Your task to perform on an android device: Open Reddit.com Image 0: 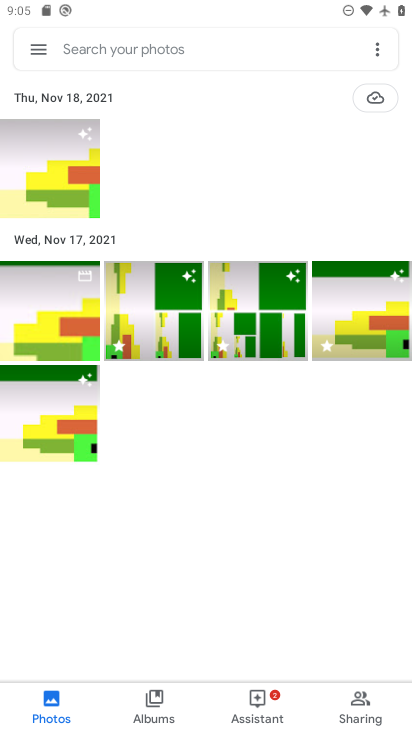
Step 0: press home button
Your task to perform on an android device: Open Reddit.com Image 1: 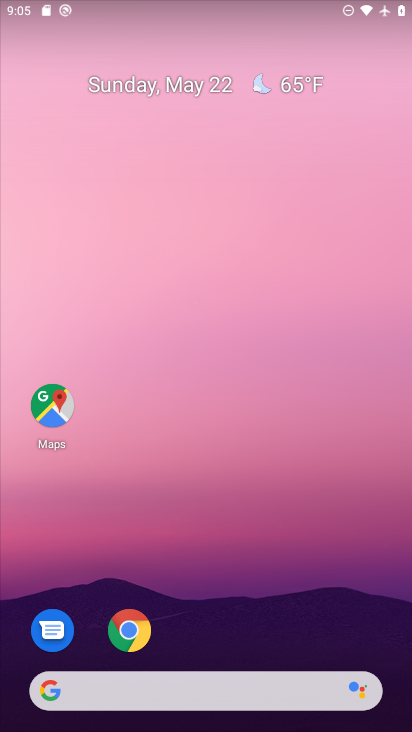
Step 1: click (133, 635)
Your task to perform on an android device: Open Reddit.com Image 2: 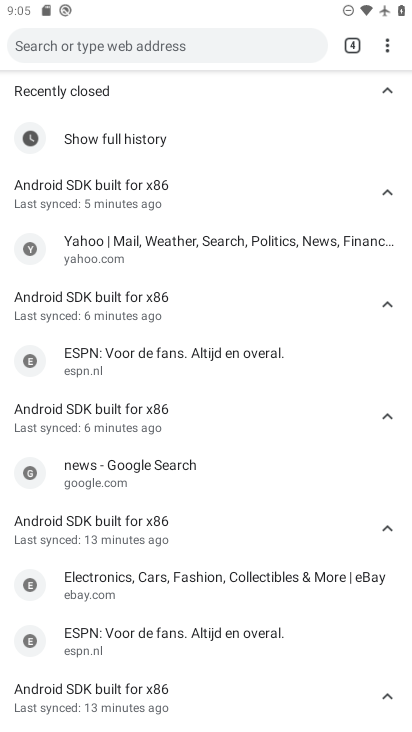
Step 2: drag from (391, 47) to (278, 87)
Your task to perform on an android device: Open Reddit.com Image 3: 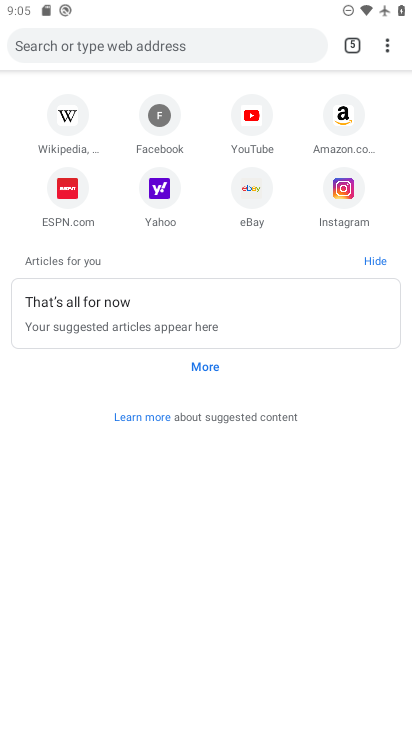
Step 3: click (178, 45)
Your task to perform on an android device: Open Reddit.com Image 4: 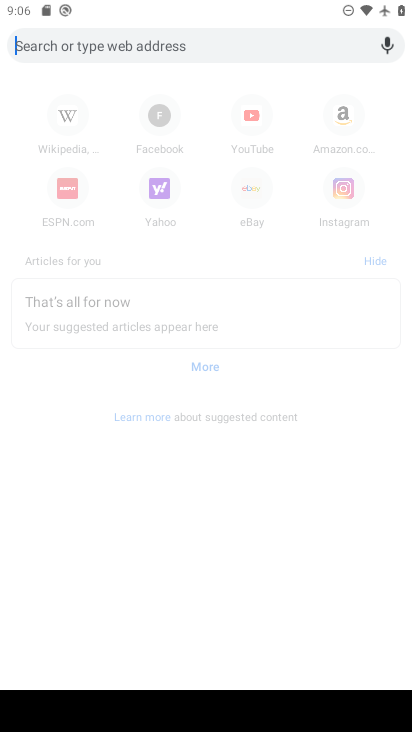
Step 4: type "reddit.com"
Your task to perform on an android device: Open Reddit.com Image 5: 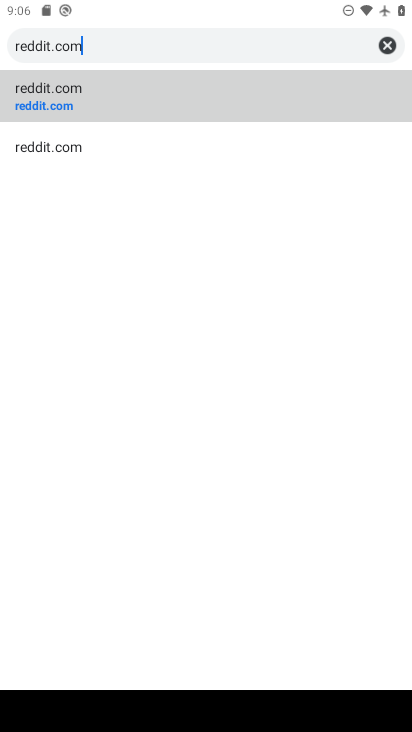
Step 5: click (163, 97)
Your task to perform on an android device: Open Reddit.com Image 6: 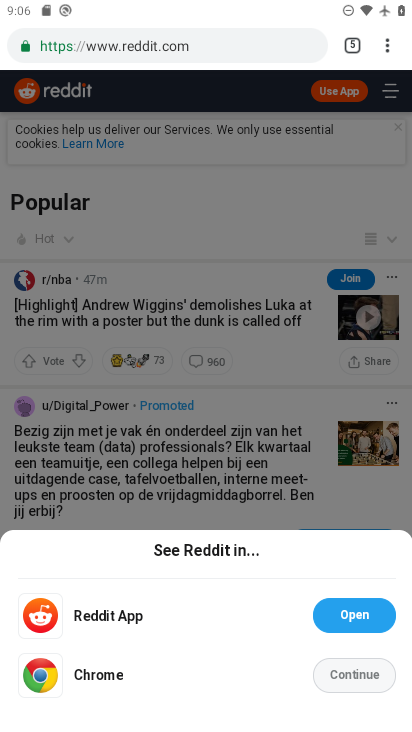
Step 6: task complete